Your task to perform on an android device: empty trash in the gmail app Image 0: 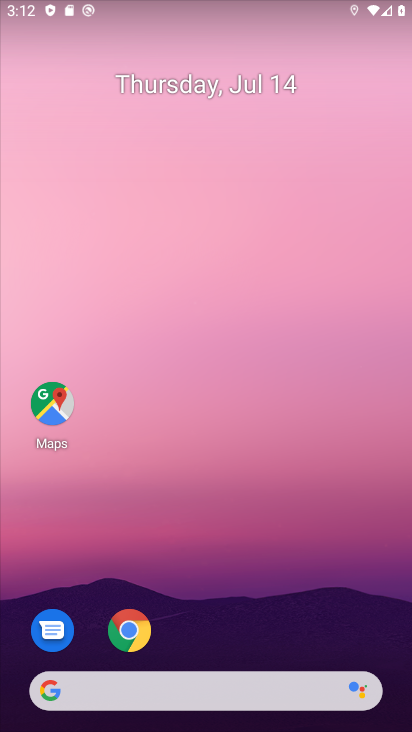
Step 0: drag from (272, 642) to (293, 2)
Your task to perform on an android device: empty trash in the gmail app Image 1: 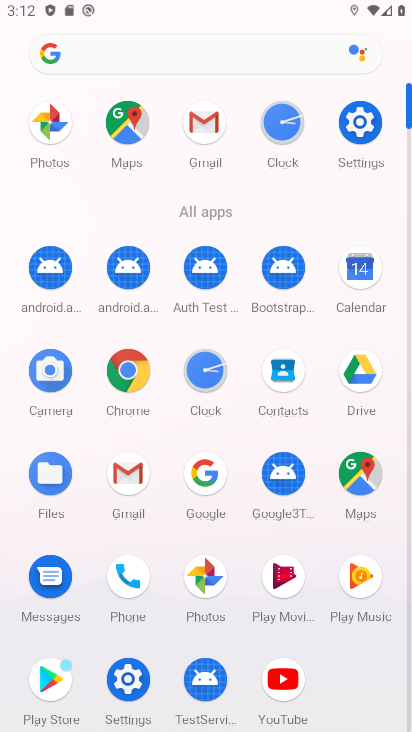
Step 1: click (364, 163)
Your task to perform on an android device: empty trash in the gmail app Image 2: 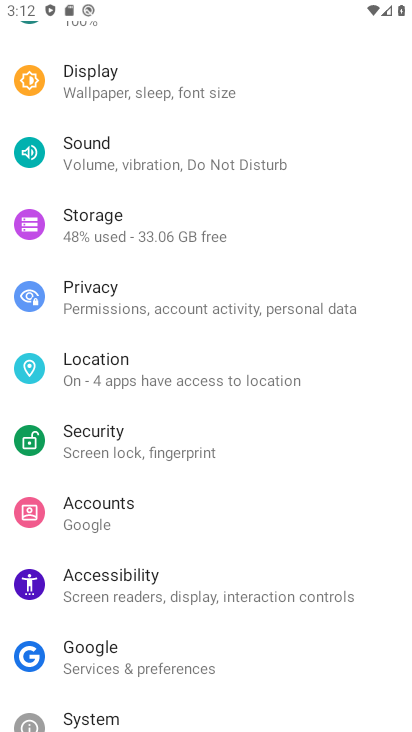
Step 2: drag from (206, 237) to (253, 526)
Your task to perform on an android device: empty trash in the gmail app Image 3: 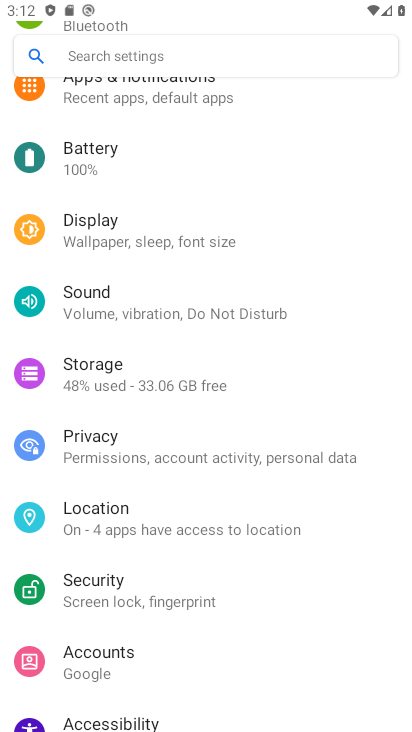
Step 3: click (85, 168)
Your task to perform on an android device: empty trash in the gmail app Image 4: 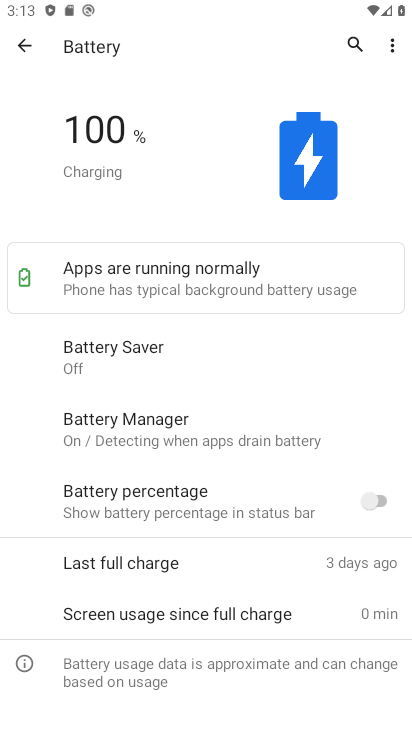
Step 4: press home button
Your task to perform on an android device: empty trash in the gmail app Image 5: 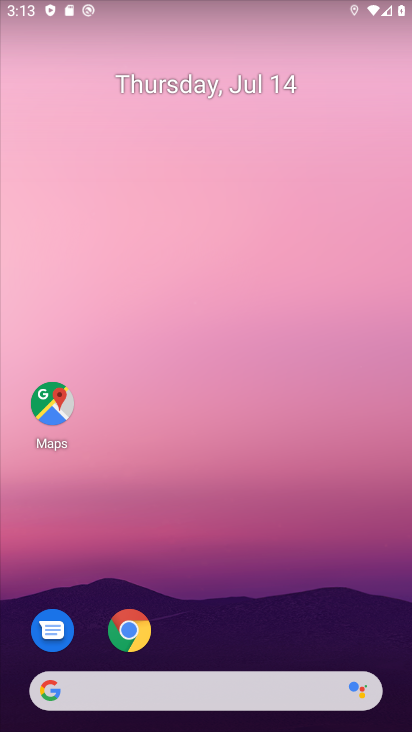
Step 5: drag from (353, 619) to (411, 624)
Your task to perform on an android device: empty trash in the gmail app Image 6: 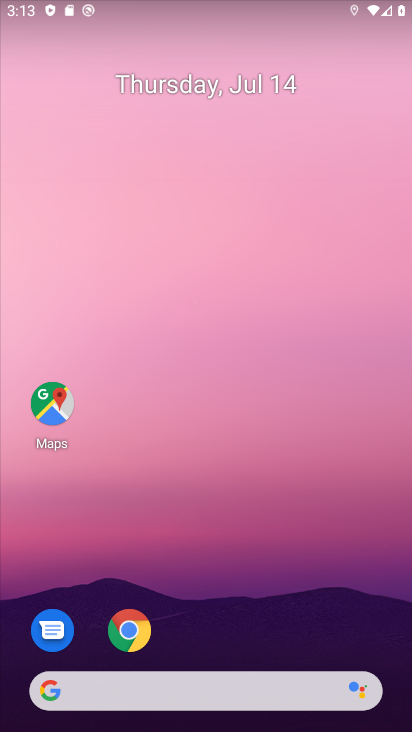
Step 6: drag from (242, 565) to (54, 5)
Your task to perform on an android device: empty trash in the gmail app Image 7: 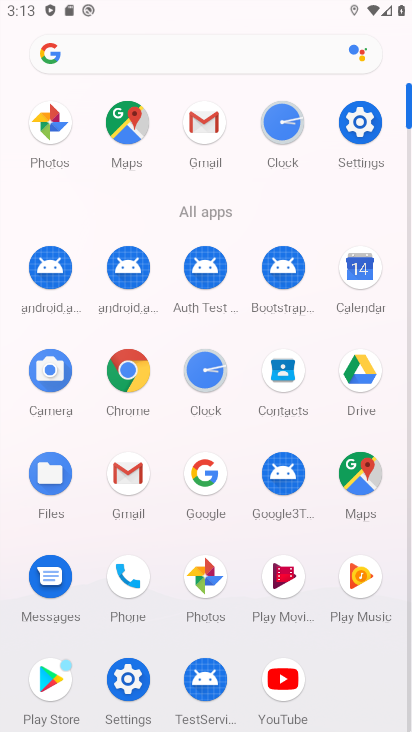
Step 7: click (197, 128)
Your task to perform on an android device: empty trash in the gmail app Image 8: 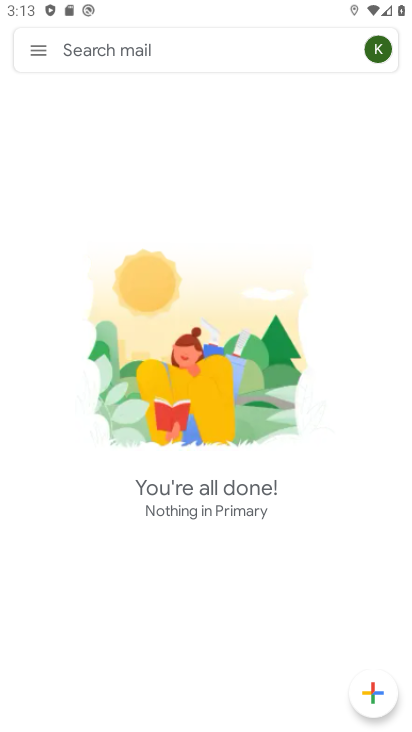
Step 8: click (42, 59)
Your task to perform on an android device: empty trash in the gmail app Image 9: 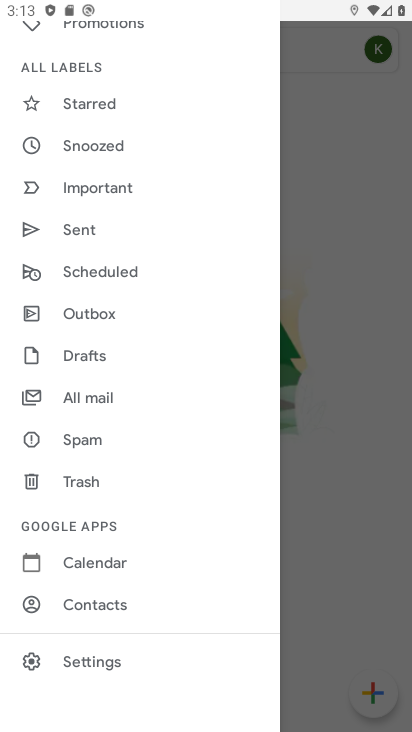
Step 9: click (70, 477)
Your task to perform on an android device: empty trash in the gmail app Image 10: 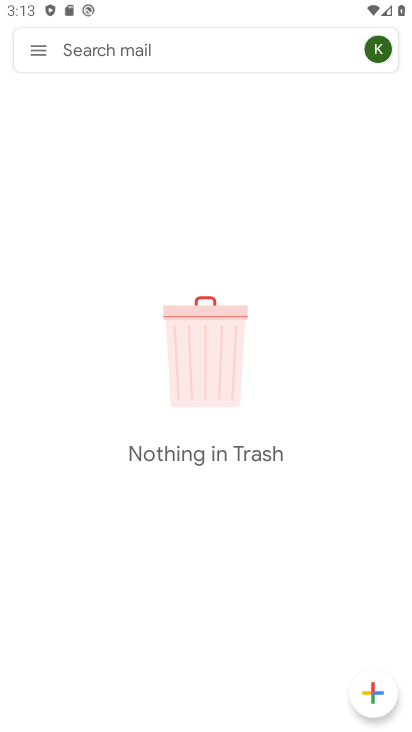
Step 10: task complete